Your task to perform on an android device: Go to Yahoo.com Image 0: 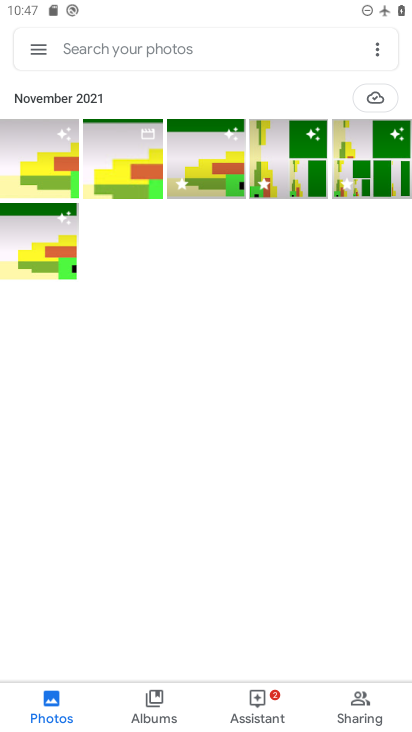
Step 0: press home button
Your task to perform on an android device: Go to Yahoo.com Image 1: 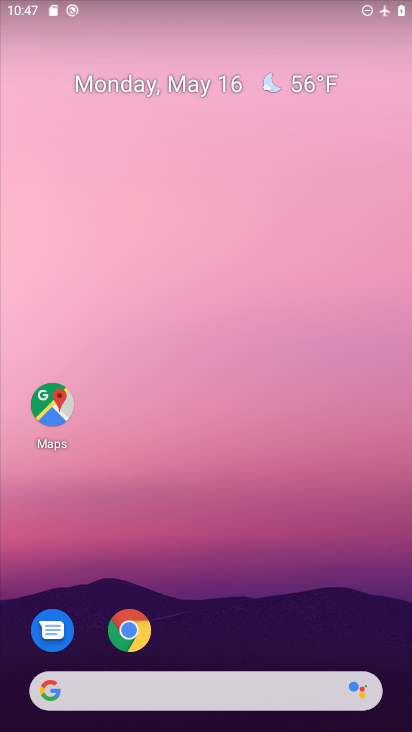
Step 1: click (210, 688)
Your task to perform on an android device: Go to Yahoo.com Image 2: 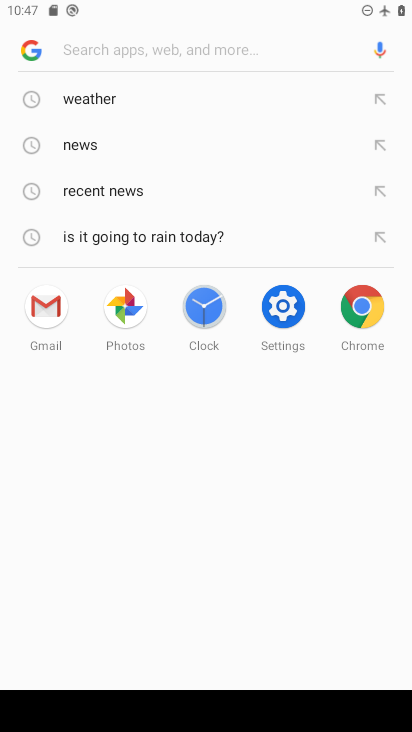
Step 2: type "yahoo.com"
Your task to perform on an android device: Go to Yahoo.com Image 3: 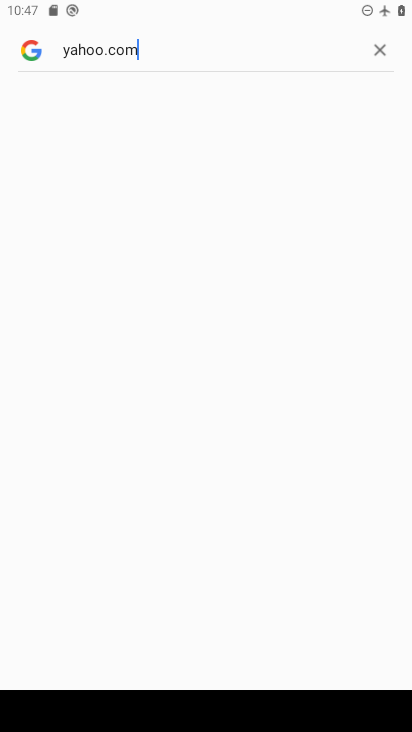
Step 3: task complete